Your task to perform on an android device: set an alarm Image 0: 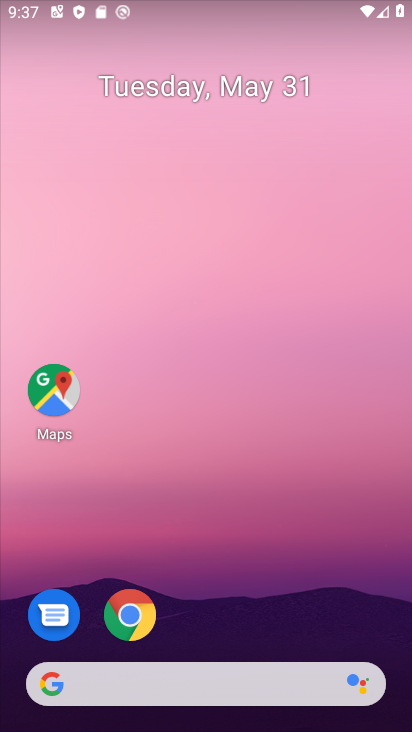
Step 0: drag from (361, 620) to (336, 131)
Your task to perform on an android device: set an alarm Image 1: 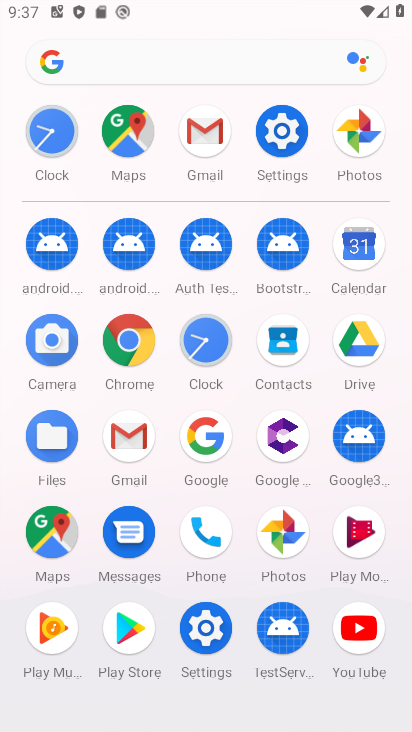
Step 1: click (210, 341)
Your task to perform on an android device: set an alarm Image 2: 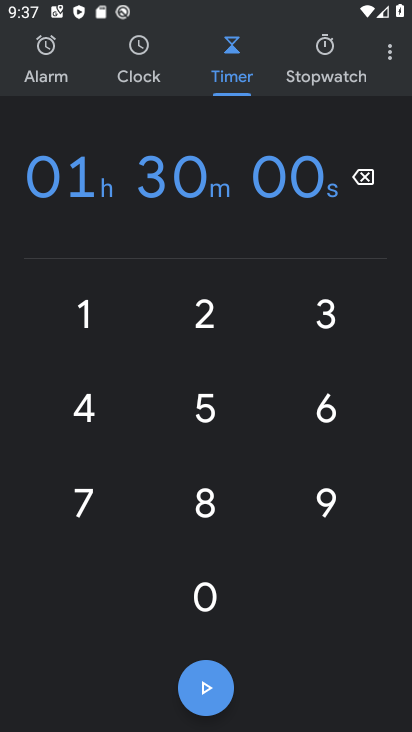
Step 2: click (41, 72)
Your task to perform on an android device: set an alarm Image 3: 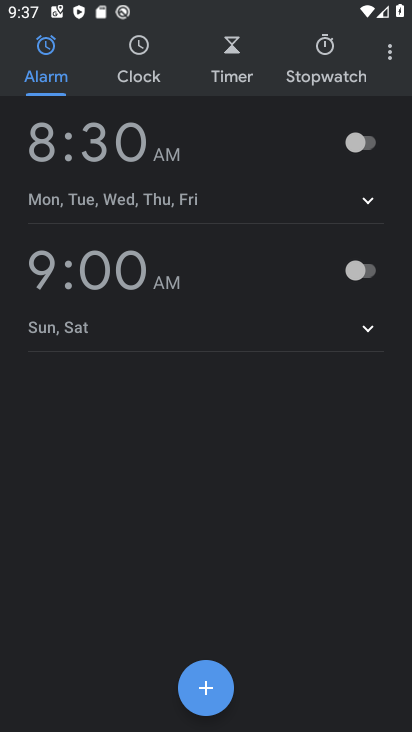
Step 3: click (74, 137)
Your task to perform on an android device: set an alarm Image 4: 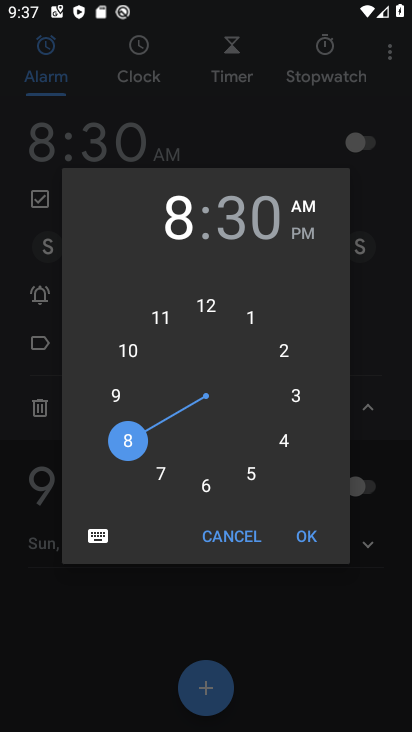
Step 4: click (214, 488)
Your task to perform on an android device: set an alarm Image 5: 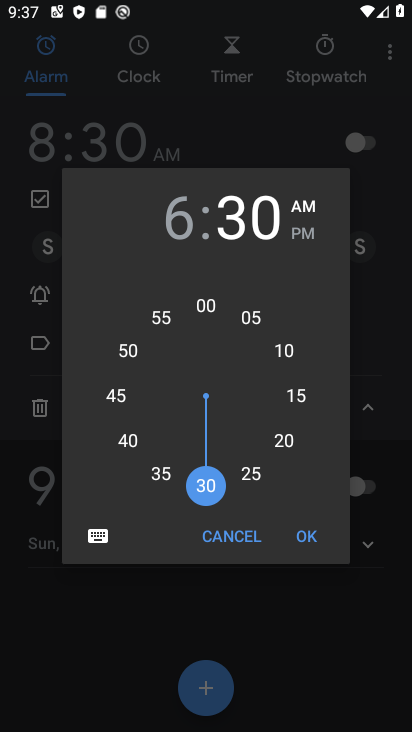
Step 5: click (300, 401)
Your task to perform on an android device: set an alarm Image 6: 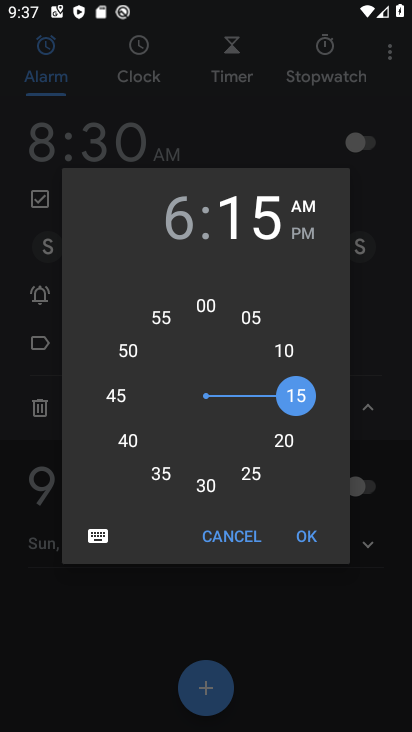
Step 6: click (308, 532)
Your task to perform on an android device: set an alarm Image 7: 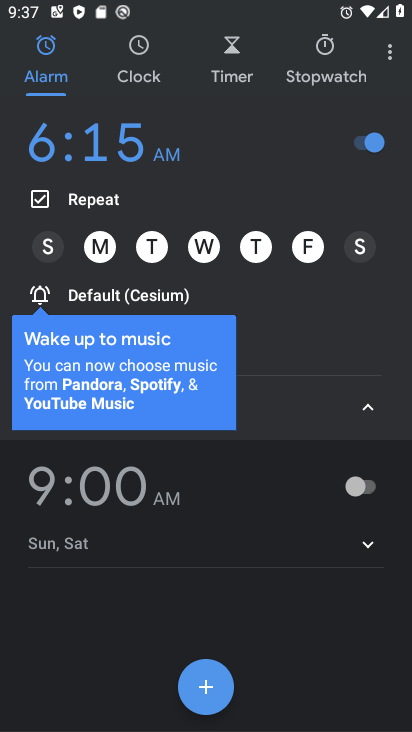
Step 7: click (358, 246)
Your task to perform on an android device: set an alarm Image 8: 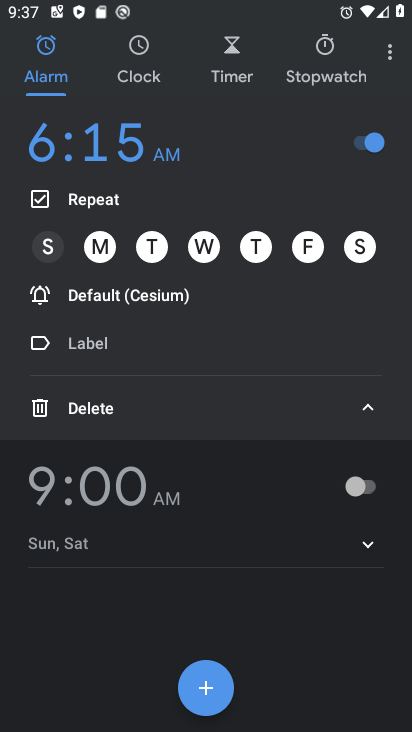
Step 8: task complete